Your task to perform on an android device: toggle notifications settings in the gmail app Image 0: 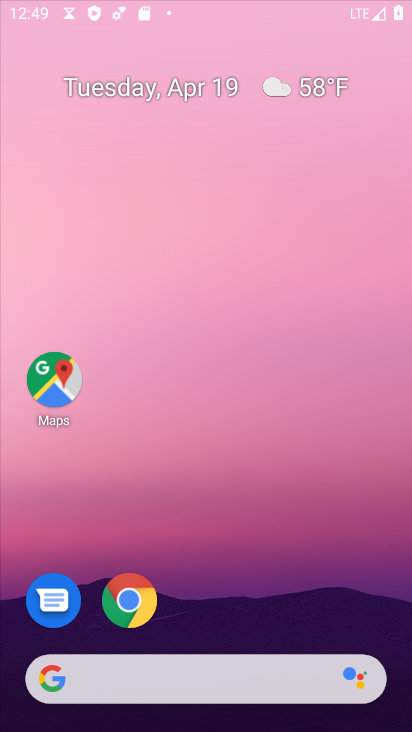
Step 0: click (128, 278)
Your task to perform on an android device: toggle notifications settings in the gmail app Image 1: 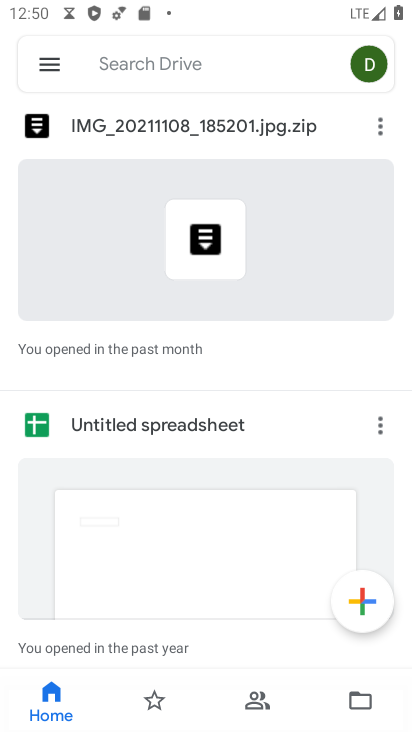
Step 1: press back button
Your task to perform on an android device: toggle notifications settings in the gmail app Image 2: 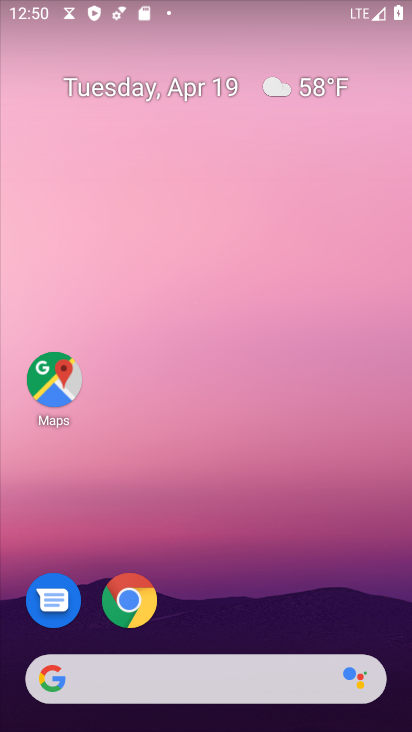
Step 2: drag from (169, 678) to (149, 54)
Your task to perform on an android device: toggle notifications settings in the gmail app Image 3: 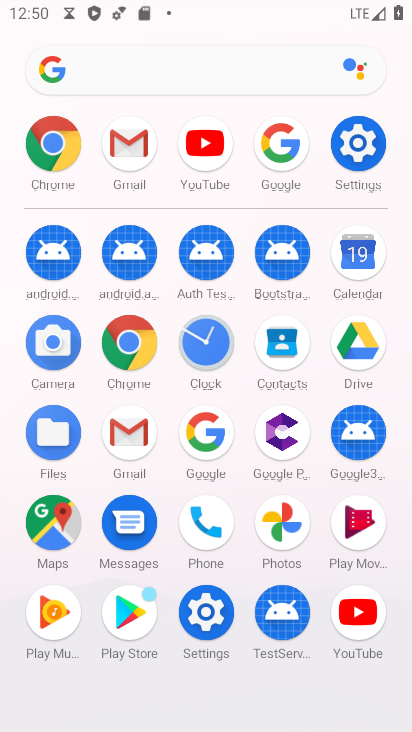
Step 3: click (128, 424)
Your task to perform on an android device: toggle notifications settings in the gmail app Image 4: 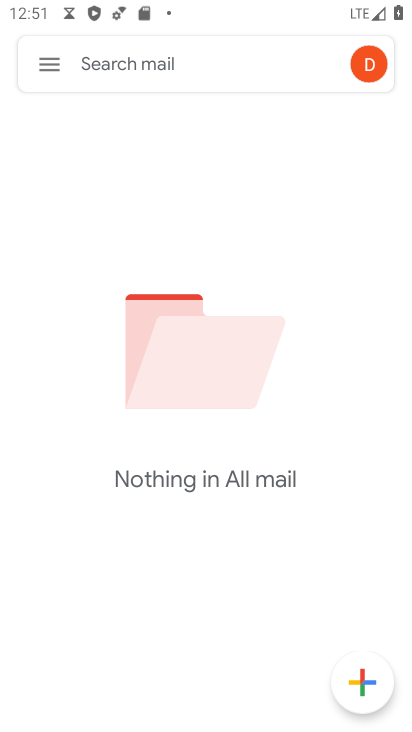
Step 4: click (47, 69)
Your task to perform on an android device: toggle notifications settings in the gmail app Image 5: 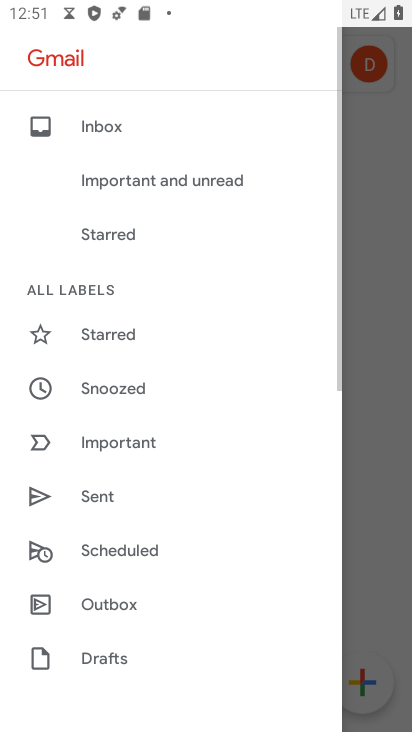
Step 5: drag from (134, 616) to (124, 183)
Your task to perform on an android device: toggle notifications settings in the gmail app Image 6: 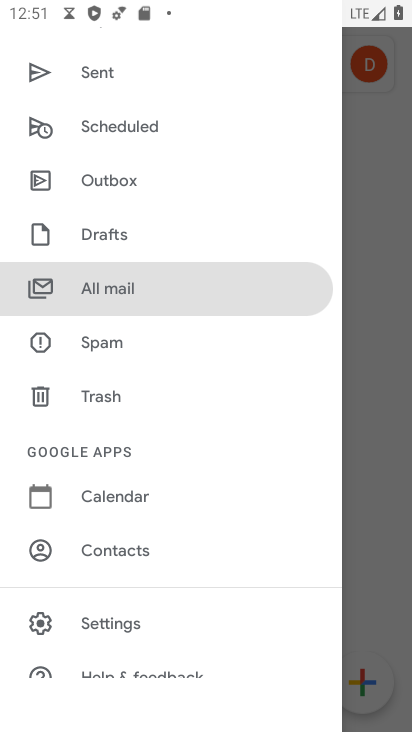
Step 6: click (107, 622)
Your task to perform on an android device: toggle notifications settings in the gmail app Image 7: 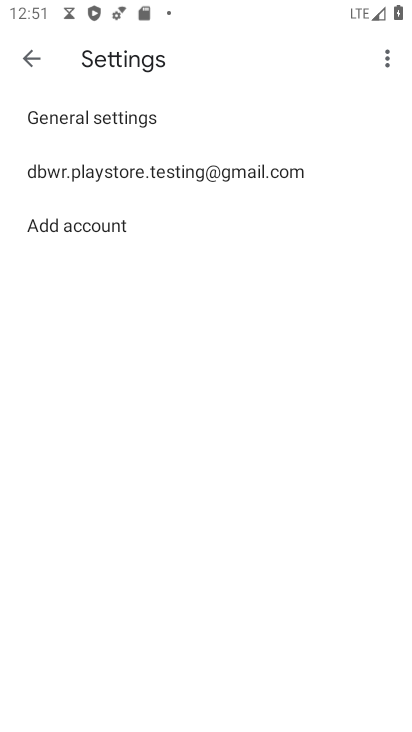
Step 7: click (113, 168)
Your task to perform on an android device: toggle notifications settings in the gmail app Image 8: 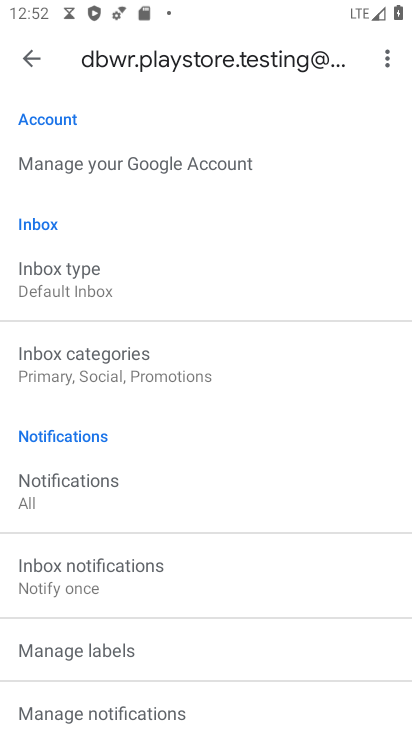
Step 8: click (137, 716)
Your task to perform on an android device: toggle notifications settings in the gmail app Image 9: 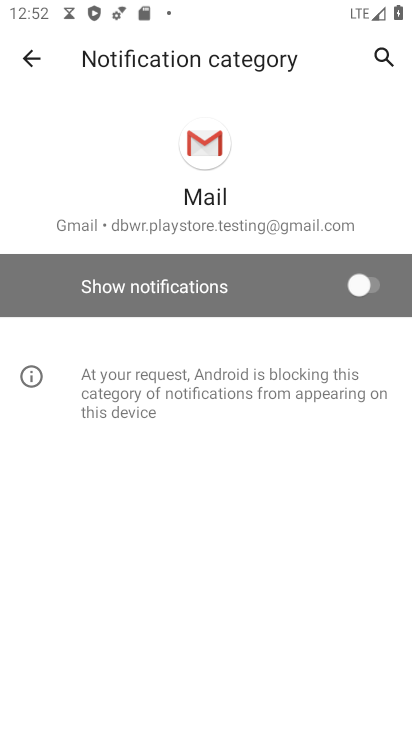
Step 9: click (370, 295)
Your task to perform on an android device: toggle notifications settings in the gmail app Image 10: 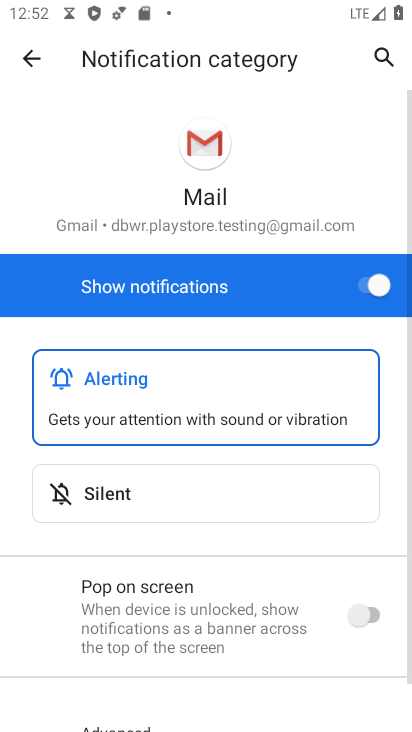
Step 10: task complete